Your task to perform on an android device: Go to sound settings Image 0: 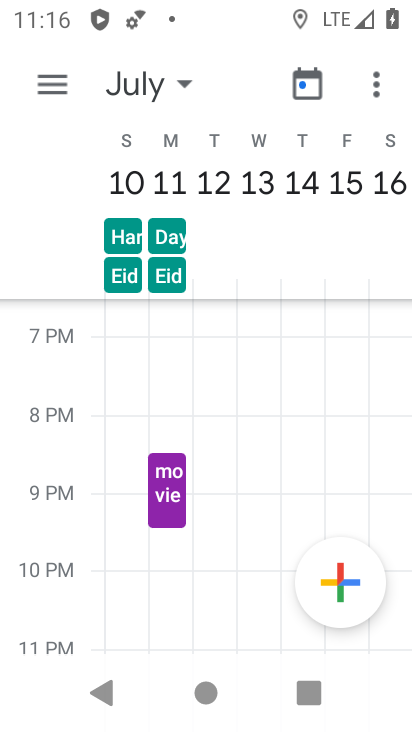
Step 0: press home button
Your task to perform on an android device: Go to sound settings Image 1: 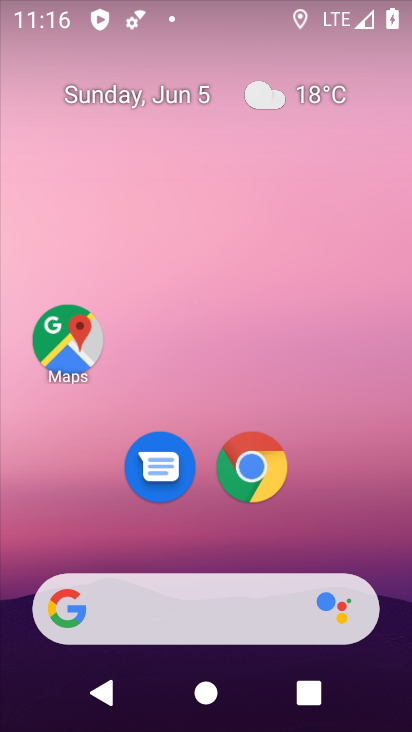
Step 1: drag from (220, 565) to (70, 11)
Your task to perform on an android device: Go to sound settings Image 2: 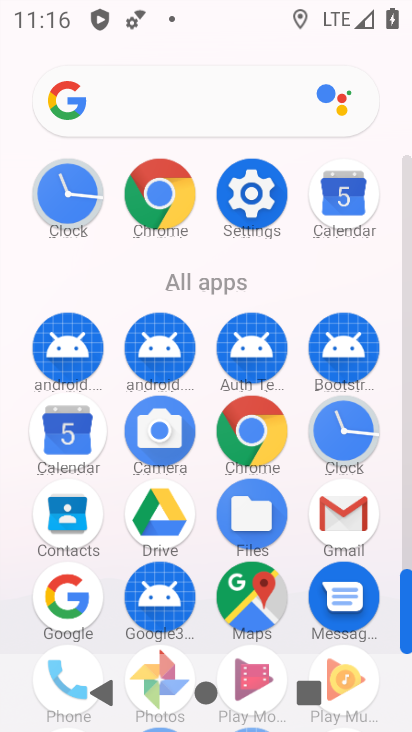
Step 2: click (246, 183)
Your task to perform on an android device: Go to sound settings Image 3: 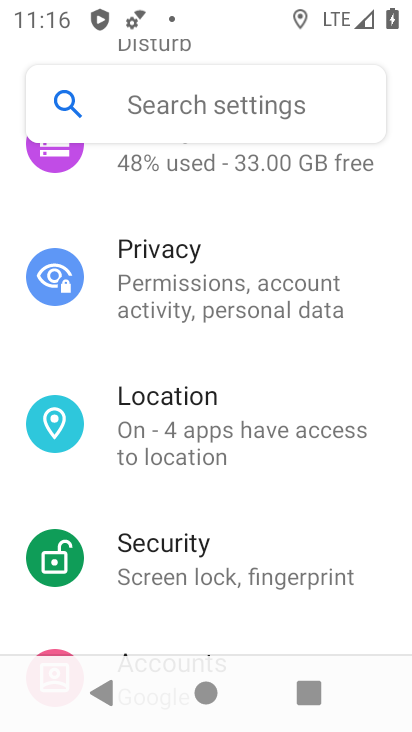
Step 3: drag from (224, 255) to (298, 539)
Your task to perform on an android device: Go to sound settings Image 4: 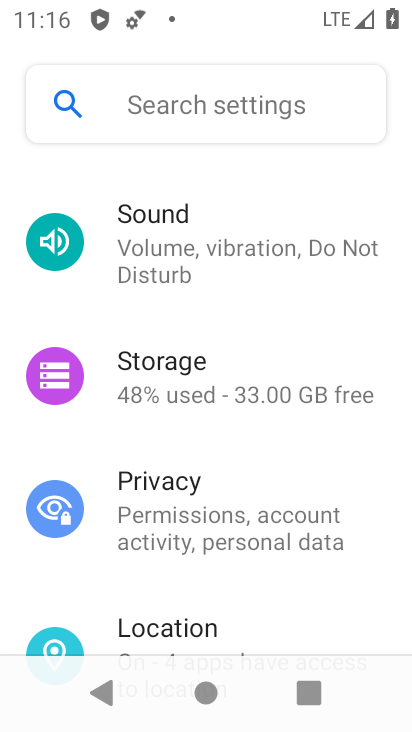
Step 4: click (202, 276)
Your task to perform on an android device: Go to sound settings Image 5: 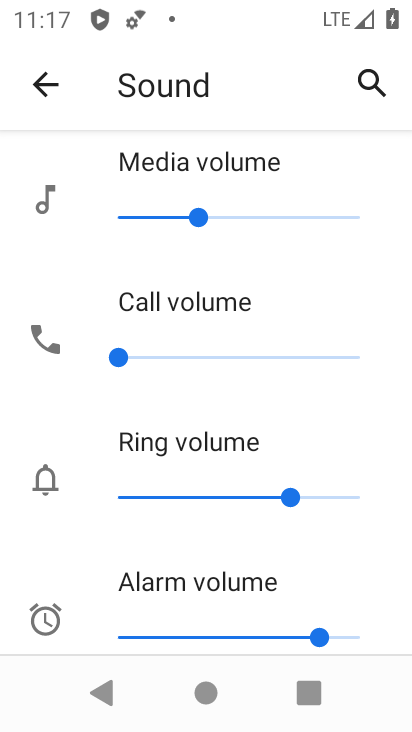
Step 5: task complete